Your task to perform on an android device: clear all cookies in the chrome app Image 0: 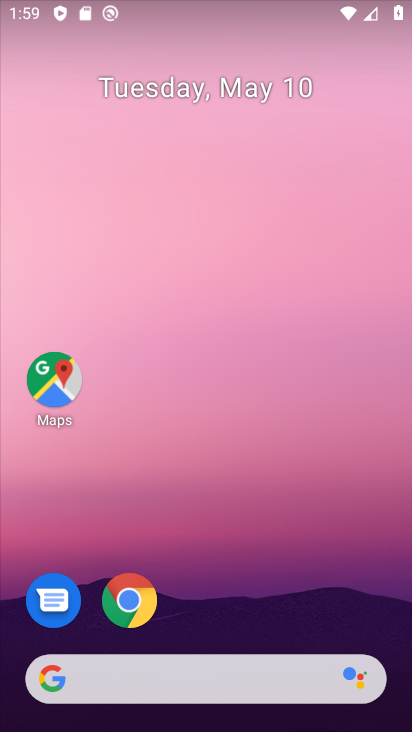
Step 0: drag from (250, 609) to (244, 223)
Your task to perform on an android device: clear all cookies in the chrome app Image 1: 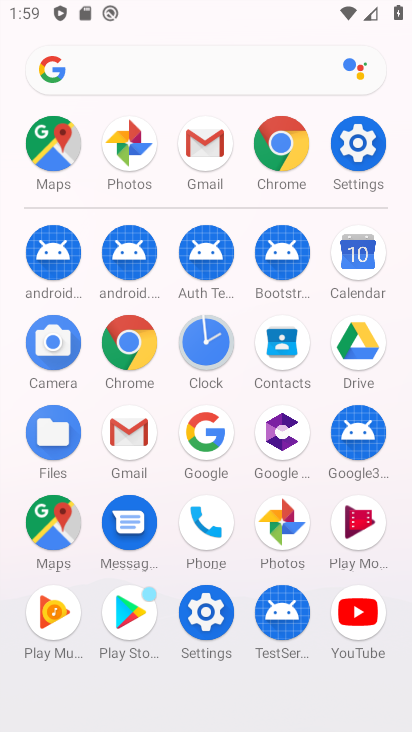
Step 1: click (290, 180)
Your task to perform on an android device: clear all cookies in the chrome app Image 2: 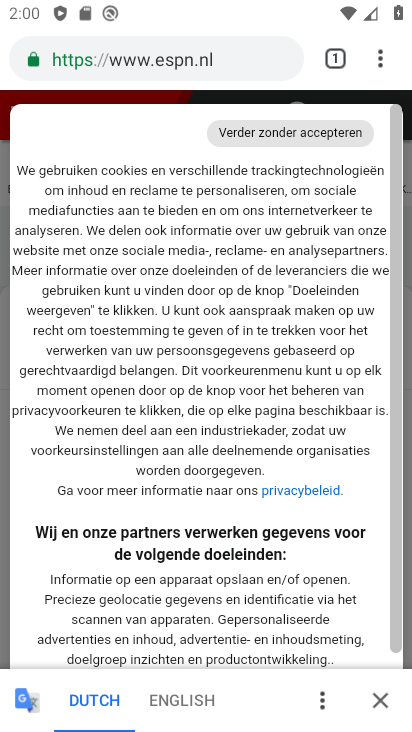
Step 2: click (386, 69)
Your task to perform on an android device: clear all cookies in the chrome app Image 3: 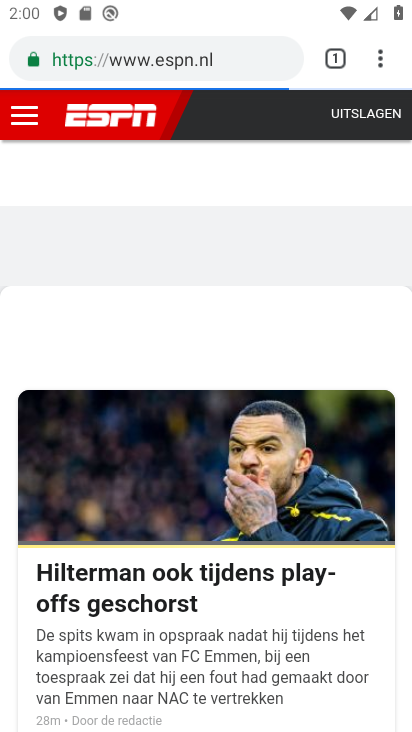
Step 3: click (384, 68)
Your task to perform on an android device: clear all cookies in the chrome app Image 4: 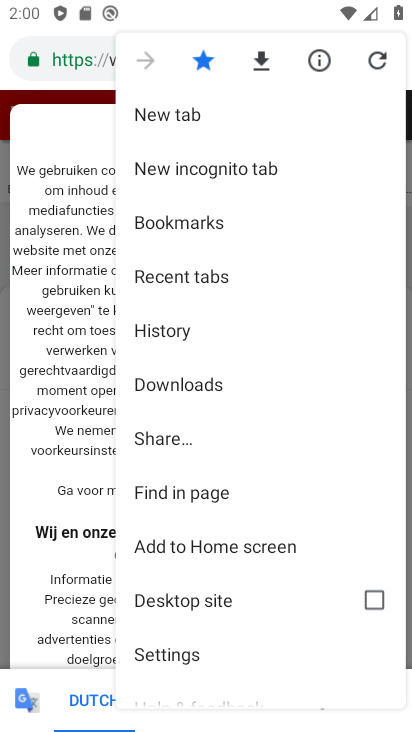
Step 4: click (187, 341)
Your task to perform on an android device: clear all cookies in the chrome app Image 5: 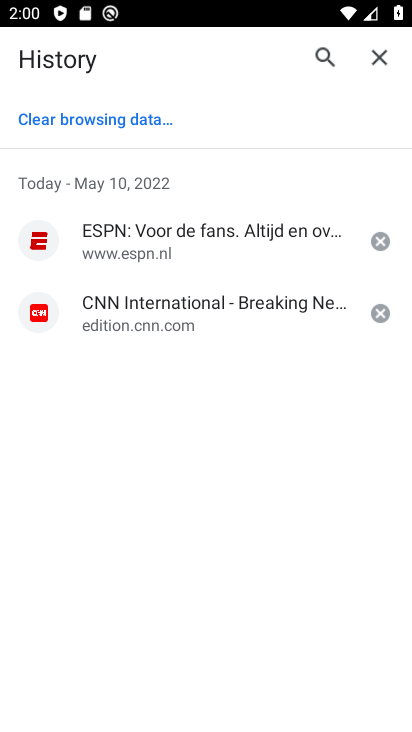
Step 5: click (136, 124)
Your task to perform on an android device: clear all cookies in the chrome app Image 6: 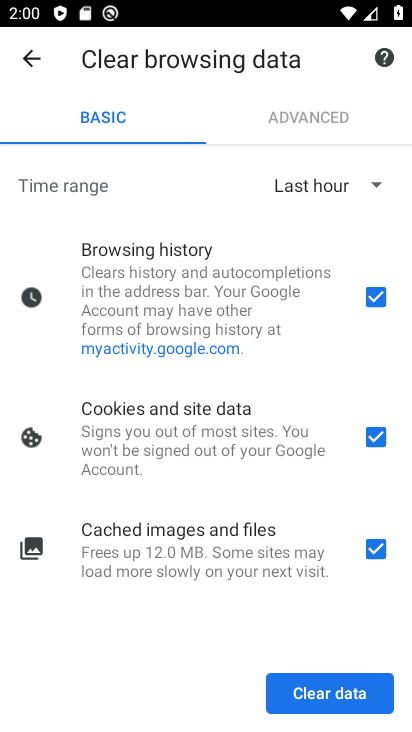
Step 6: click (384, 300)
Your task to perform on an android device: clear all cookies in the chrome app Image 7: 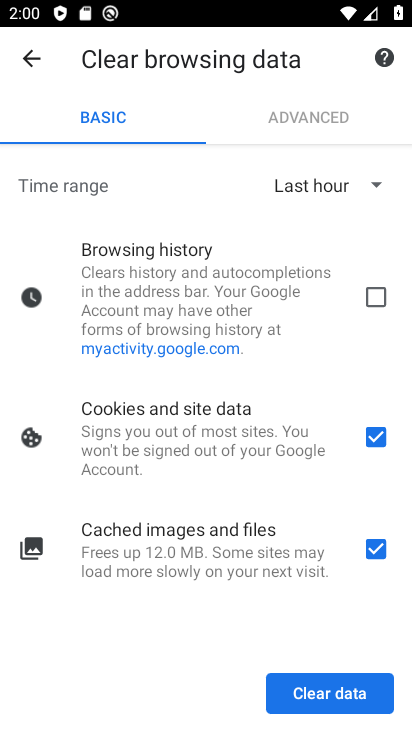
Step 7: click (330, 705)
Your task to perform on an android device: clear all cookies in the chrome app Image 8: 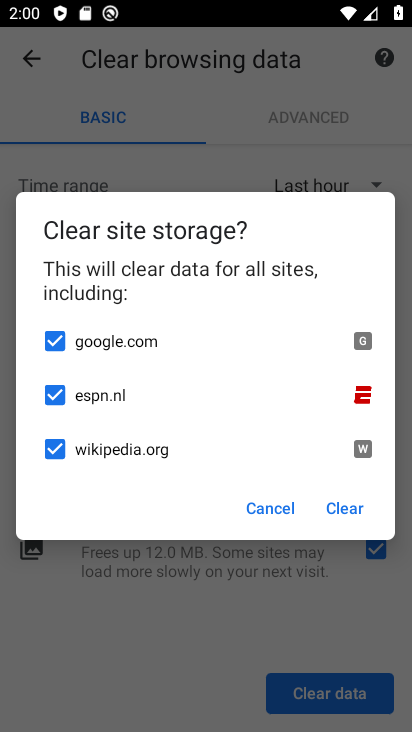
Step 8: click (350, 511)
Your task to perform on an android device: clear all cookies in the chrome app Image 9: 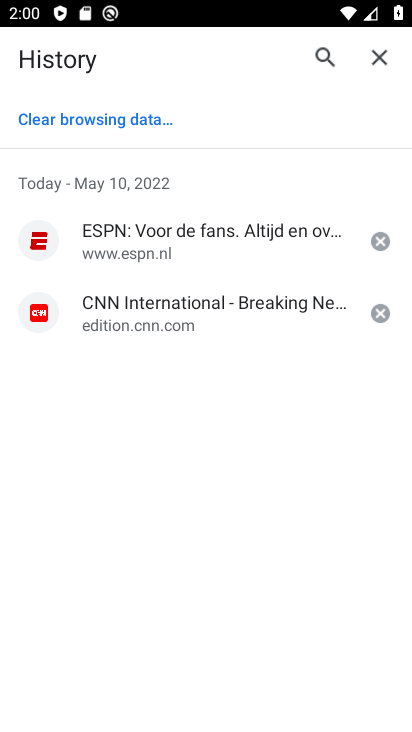
Step 9: task complete